Your task to perform on an android device: Search for pizza restaurants on Maps Image 0: 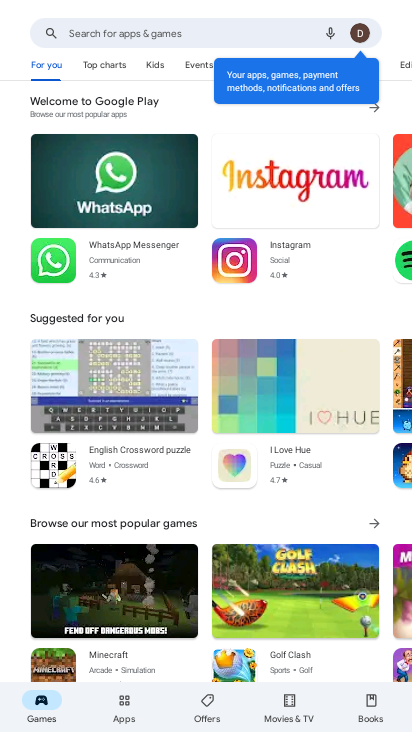
Step 0: press home button
Your task to perform on an android device: Search for pizza restaurants on Maps Image 1: 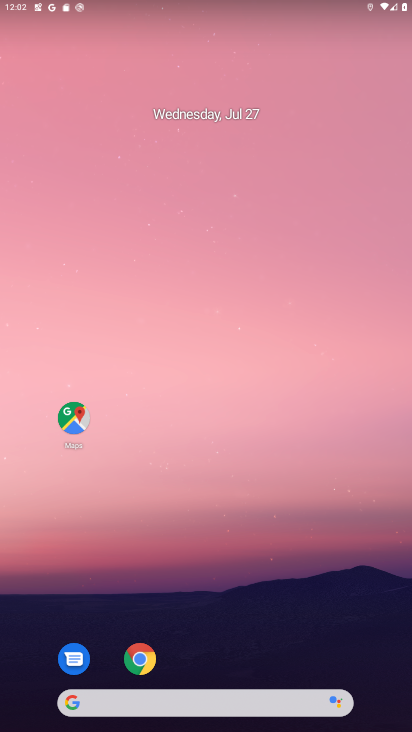
Step 1: drag from (124, 629) to (108, 67)
Your task to perform on an android device: Search for pizza restaurants on Maps Image 2: 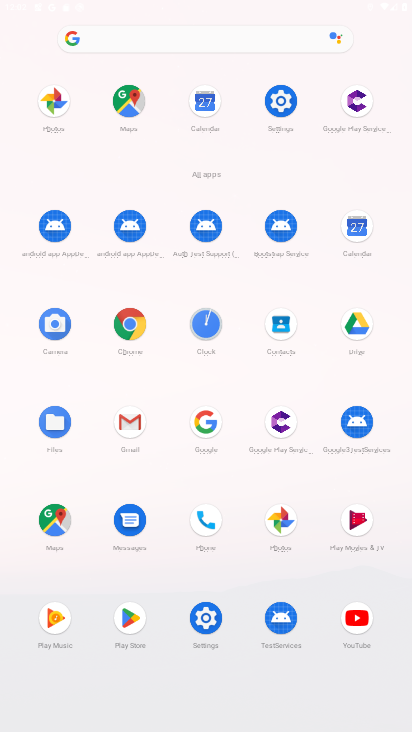
Step 2: click (47, 518)
Your task to perform on an android device: Search for pizza restaurants on Maps Image 3: 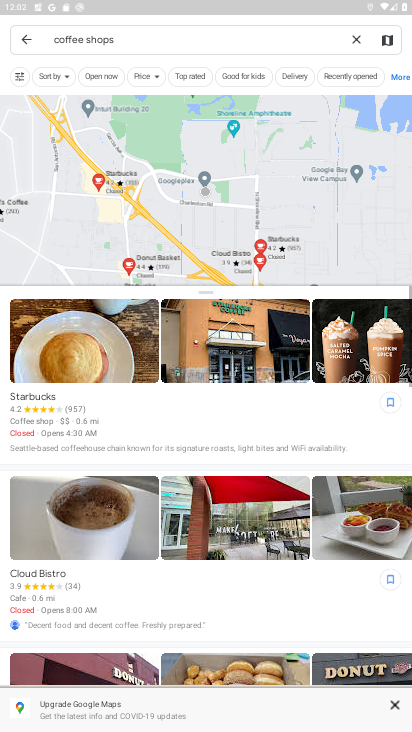
Step 3: press back button
Your task to perform on an android device: Search for pizza restaurants on Maps Image 4: 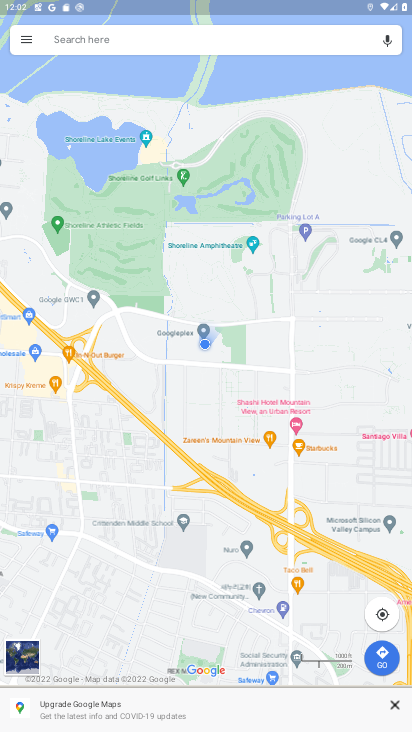
Step 4: click (125, 41)
Your task to perform on an android device: Search for pizza restaurants on Maps Image 5: 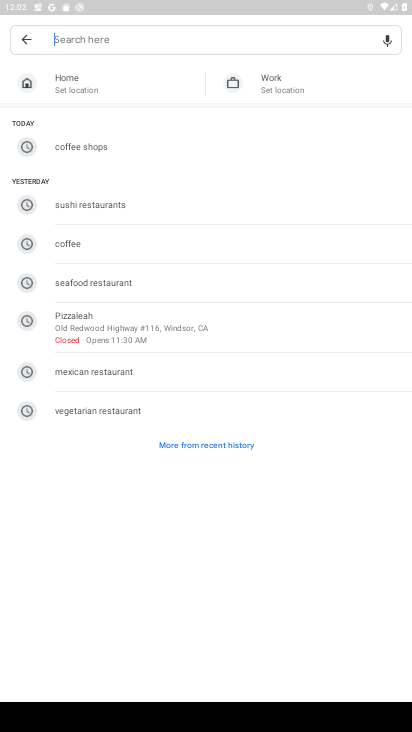
Step 5: type "pizza restaurant"
Your task to perform on an android device: Search for pizza restaurants on Maps Image 6: 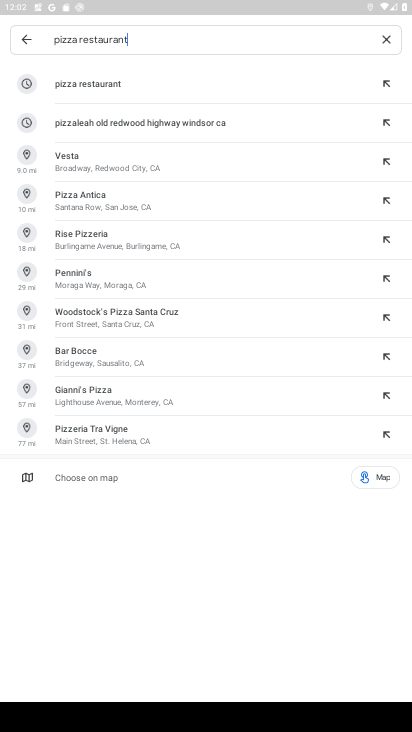
Step 6: click (84, 80)
Your task to perform on an android device: Search for pizza restaurants on Maps Image 7: 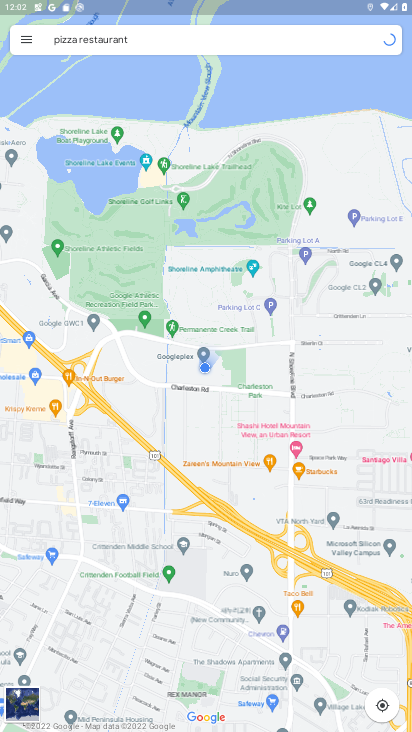
Step 7: task complete